Your task to perform on an android device: Go to location settings Image 0: 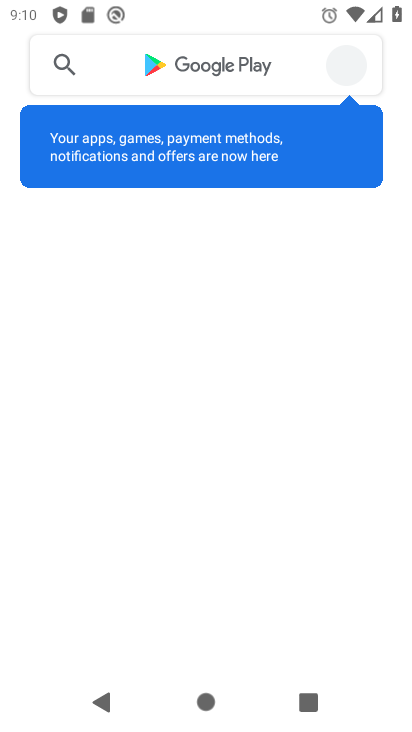
Step 0: press home button
Your task to perform on an android device: Go to location settings Image 1: 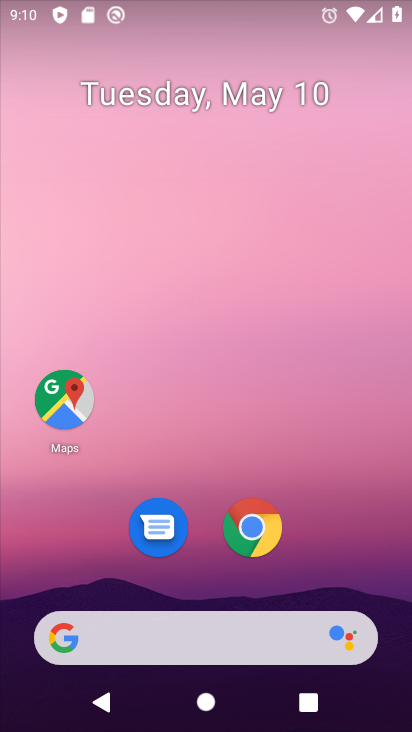
Step 1: drag from (200, 601) to (213, 6)
Your task to perform on an android device: Go to location settings Image 2: 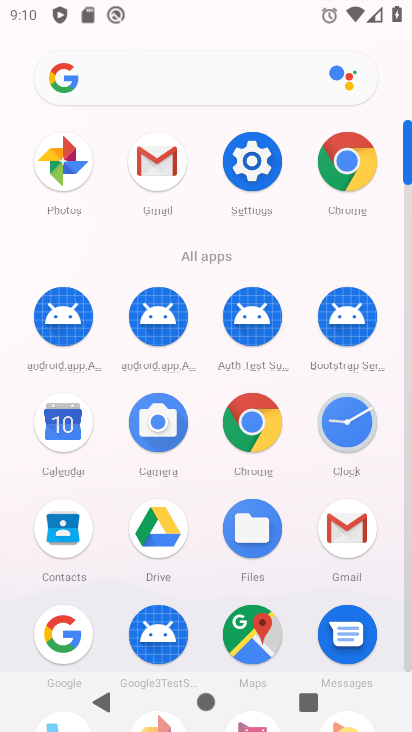
Step 2: click (251, 163)
Your task to perform on an android device: Go to location settings Image 3: 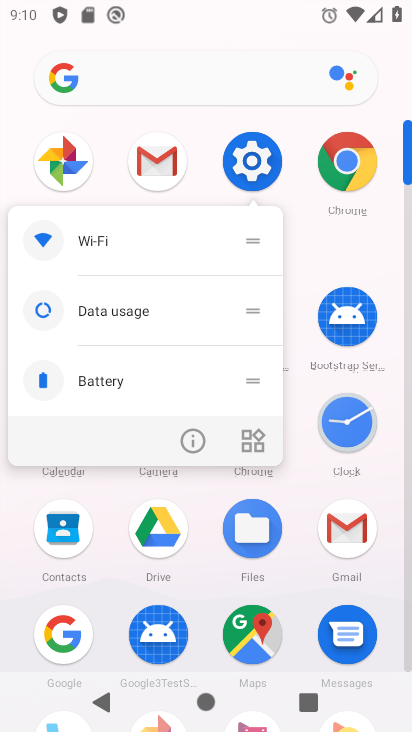
Step 3: click (262, 148)
Your task to perform on an android device: Go to location settings Image 4: 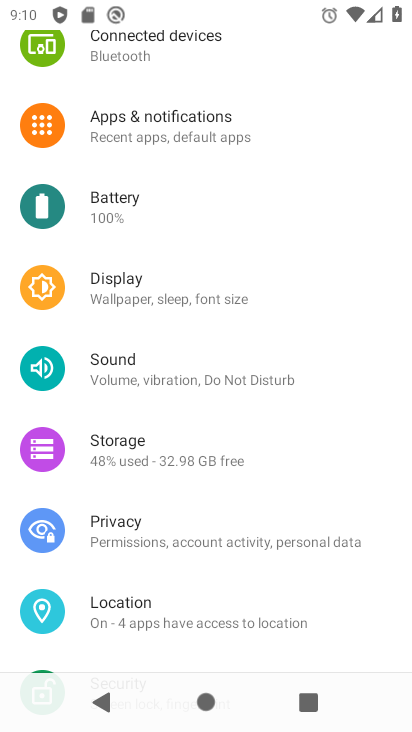
Step 4: click (152, 603)
Your task to perform on an android device: Go to location settings Image 5: 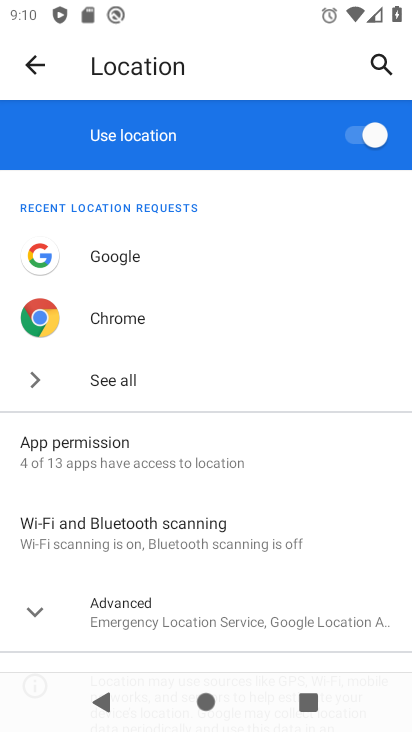
Step 5: click (139, 612)
Your task to perform on an android device: Go to location settings Image 6: 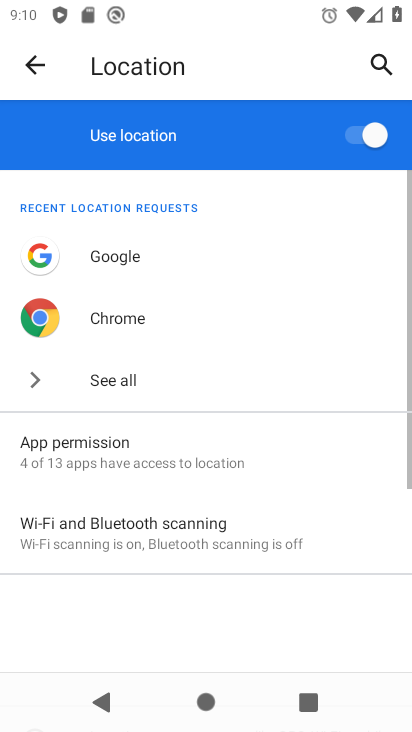
Step 6: task complete